Your task to perform on an android device: What's the price of the 2x4x8 boards at Home Depot? Image 0: 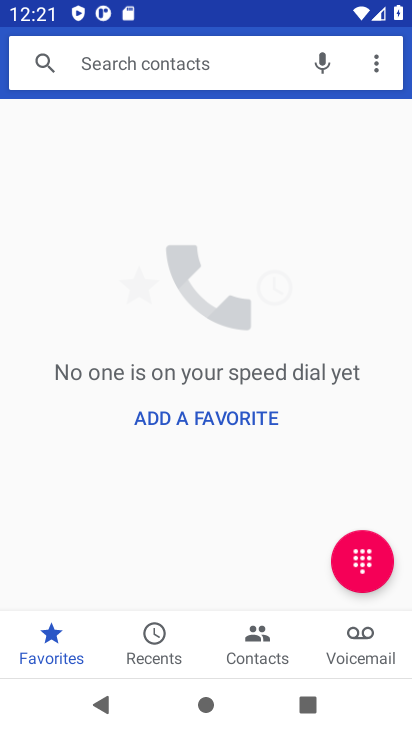
Step 0: press home button
Your task to perform on an android device: What's the price of the 2x4x8 boards at Home Depot? Image 1: 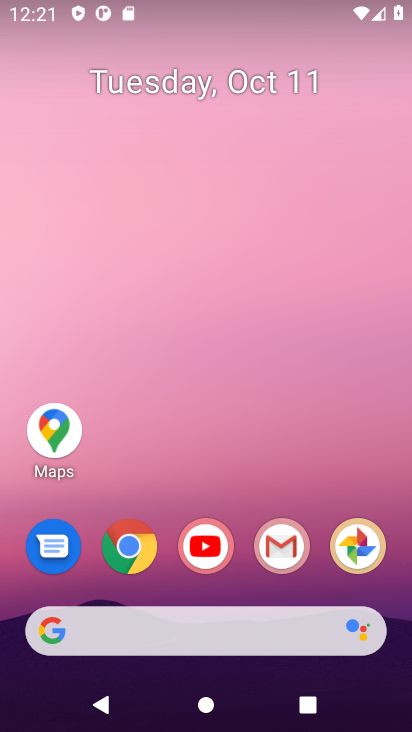
Step 1: click (130, 555)
Your task to perform on an android device: What's the price of the 2x4x8 boards at Home Depot? Image 2: 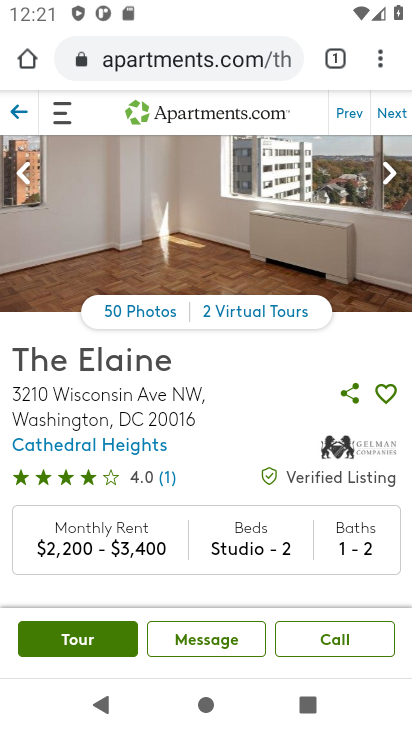
Step 2: click (168, 52)
Your task to perform on an android device: What's the price of the 2x4x8 boards at Home Depot? Image 3: 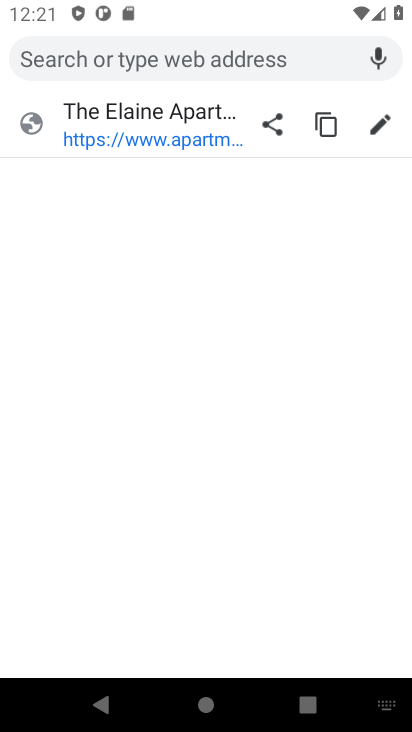
Step 3: type "home depot"
Your task to perform on an android device: What's the price of the 2x4x8 boards at Home Depot? Image 4: 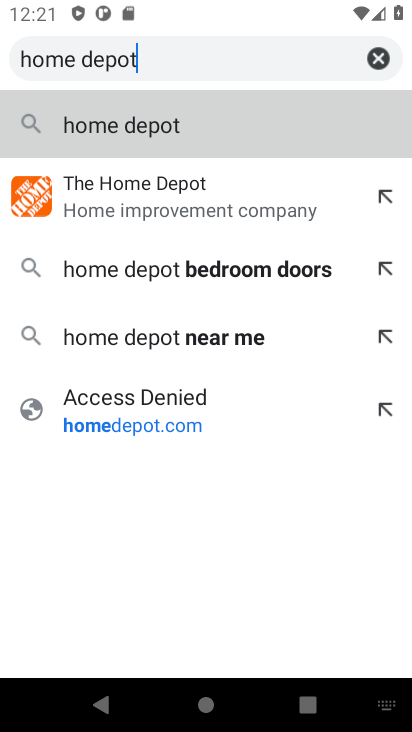
Step 4: type ""
Your task to perform on an android device: What's the price of the 2x4x8 boards at Home Depot? Image 5: 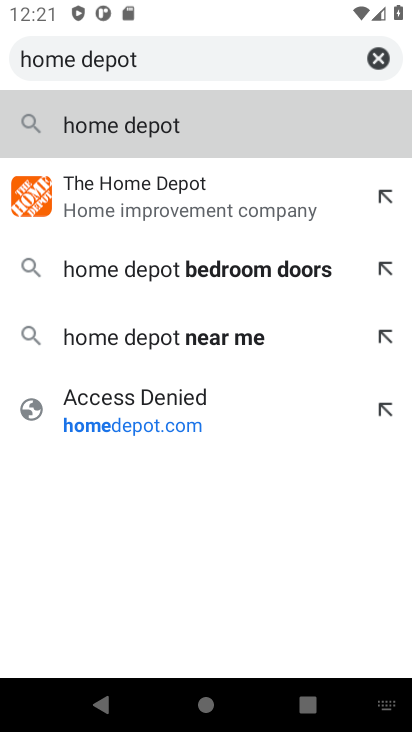
Step 5: press enter
Your task to perform on an android device: What's the price of the 2x4x8 boards at Home Depot? Image 6: 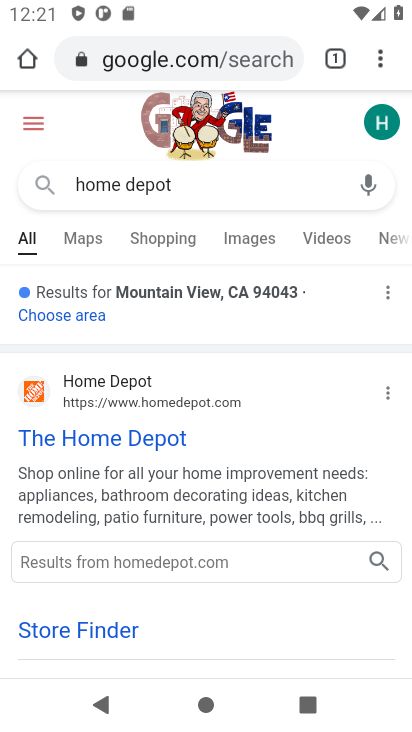
Step 6: click (139, 437)
Your task to perform on an android device: What's the price of the 2x4x8 boards at Home Depot? Image 7: 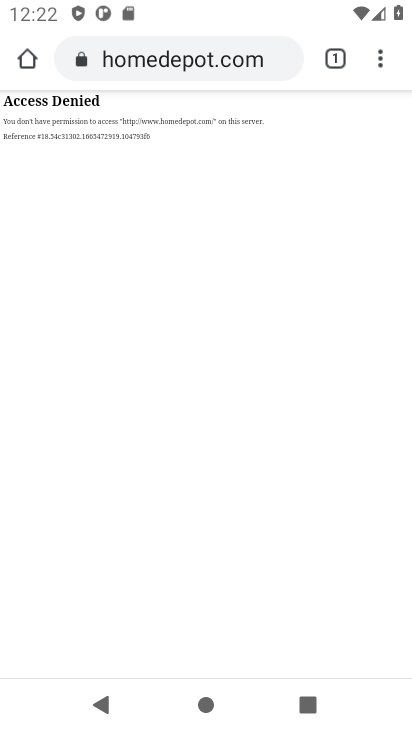
Step 7: task complete